Your task to perform on an android device: set default search engine in the chrome app Image 0: 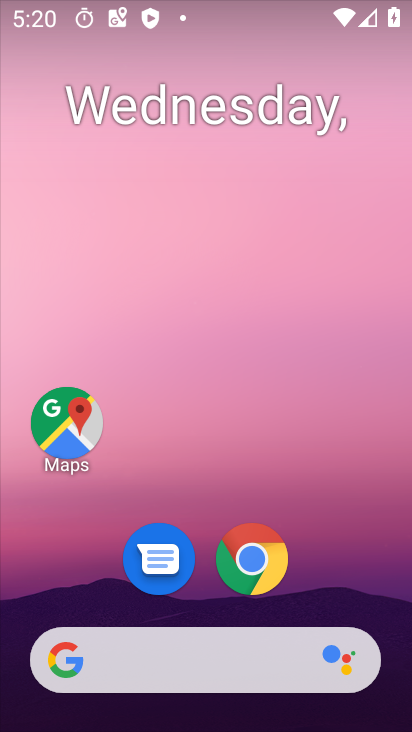
Step 0: press home button
Your task to perform on an android device: set default search engine in the chrome app Image 1: 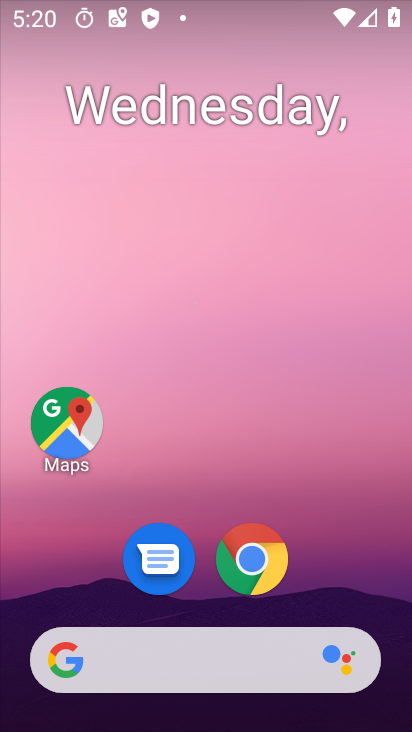
Step 1: drag from (320, 384) to (285, 185)
Your task to perform on an android device: set default search engine in the chrome app Image 2: 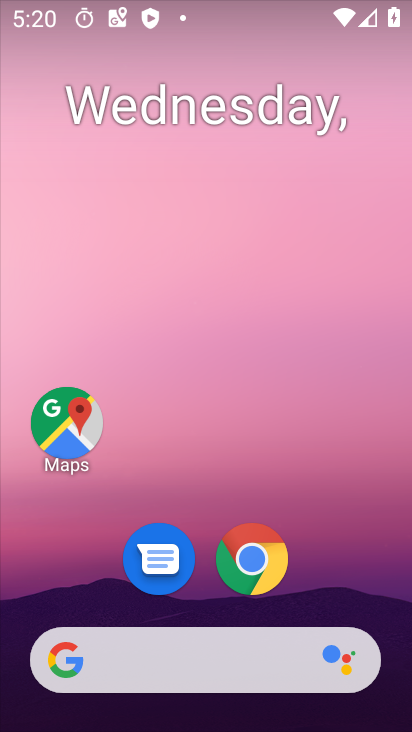
Step 2: click (261, 554)
Your task to perform on an android device: set default search engine in the chrome app Image 3: 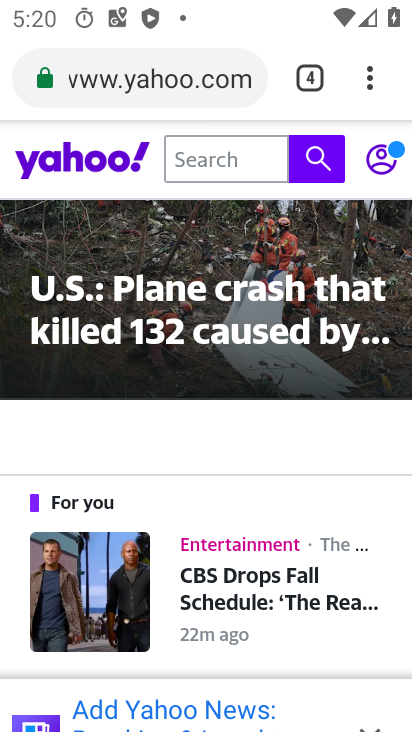
Step 3: click (378, 66)
Your task to perform on an android device: set default search engine in the chrome app Image 4: 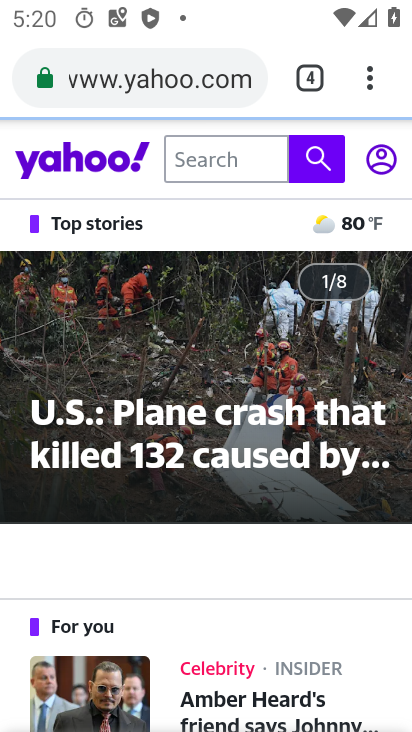
Step 4: click (370, 68)
Your task to perform on an android device: set default search engine in the chrome app Image 5: 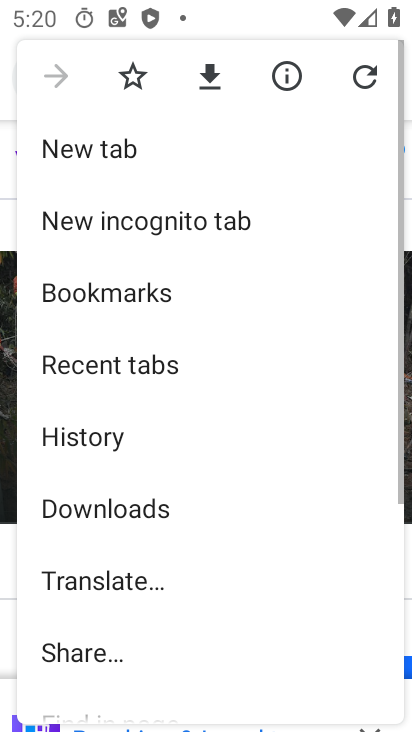
Step 5: drag from (198, 595) to (217, 254)
Your task to perform on an android device: set default search engine in the chrome app Image 6: 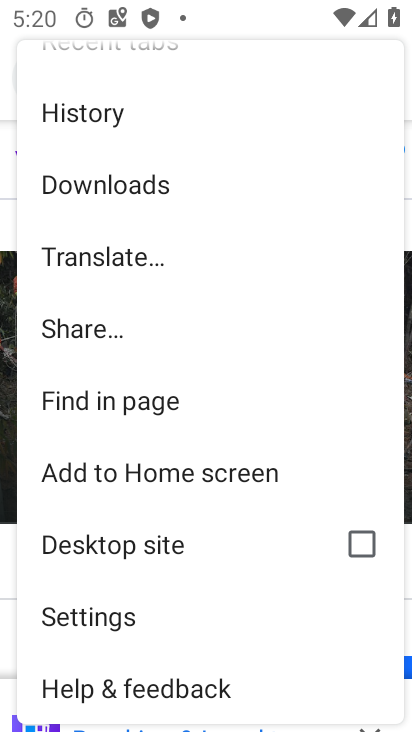
Step 6: click (150, 602)
Your task to perform on an android device: set default search engine in the chrome app Image 7: 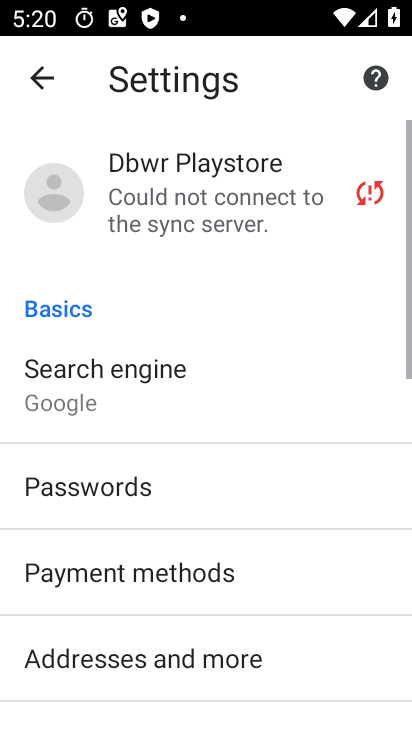
Step 7: click (149, 387)
Your task to perform on an android device: set default search engine in the chrome app Image 8: 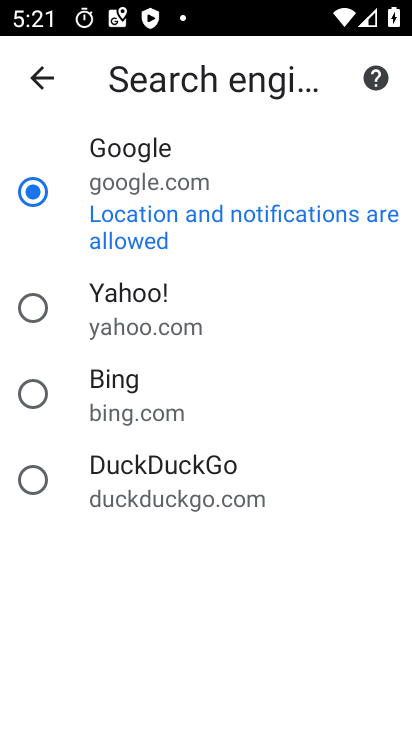
Step 8: click (192, 158)
Your task to perform on an android device: set default search engine in the chrome app Image 9: 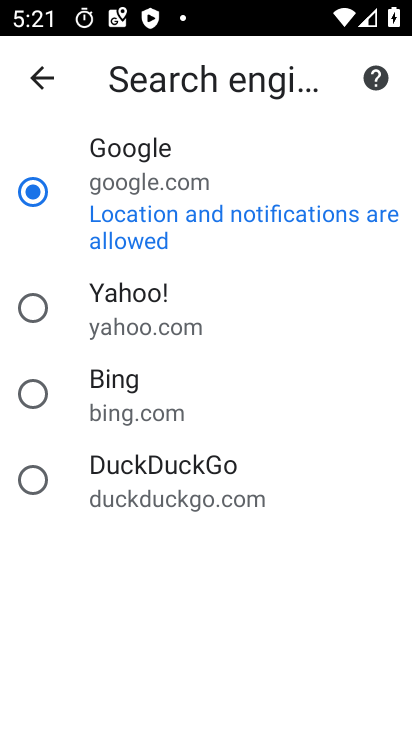
Step 9: task complete